Your task to perform on an android device: Go to Wikipedia Image 0: 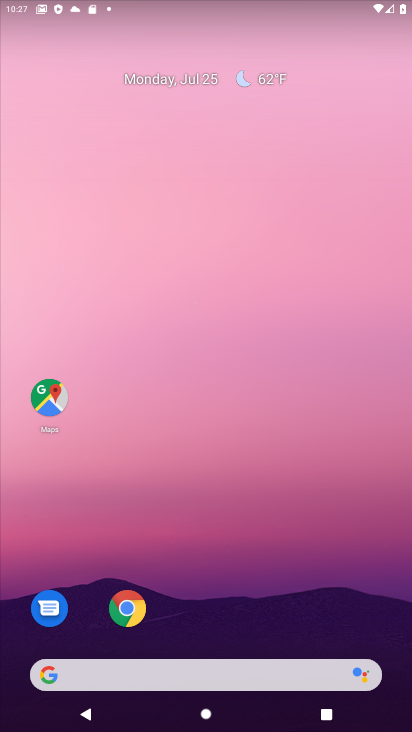
Step 0: click (123, 598)
Your task to perform on an android device: Go to Wikipedia Image 1: 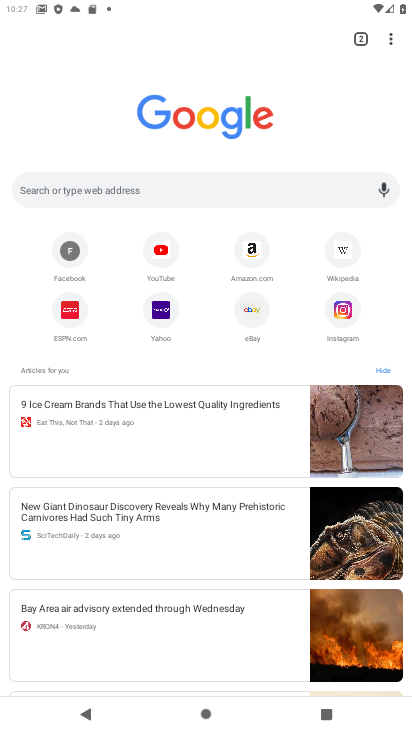
Step 1: click (354, 260)
Your task to perform on an android device: Go to Wikipedia Image 2: 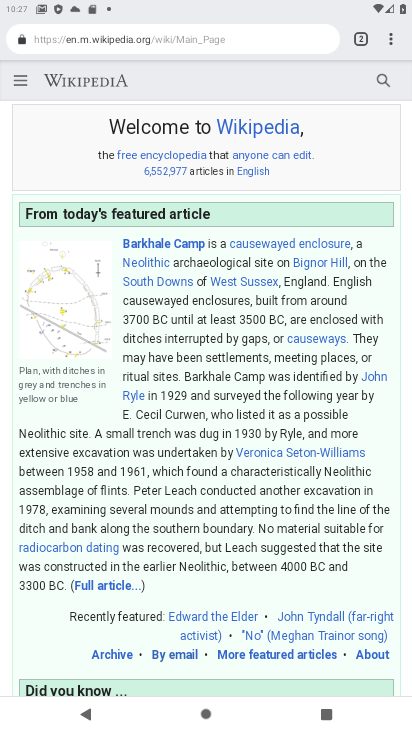
Step 2: task complete